Your task to perform on an android device: turn off location history Image 0: 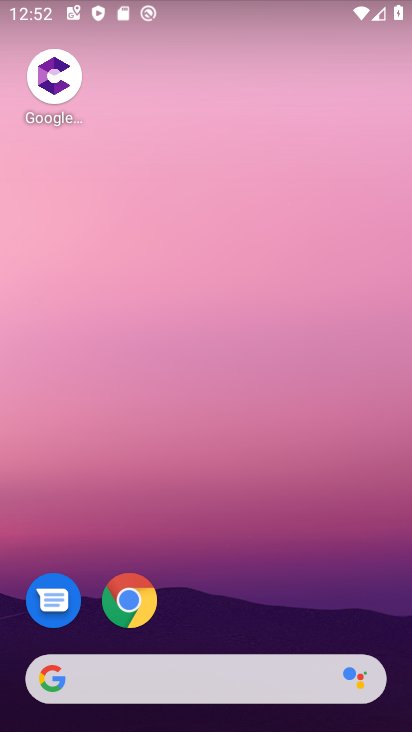
Step 0: drag from (323, 209) to (347, 35)
Your task to perform on an android device: turn off location history Image 1: 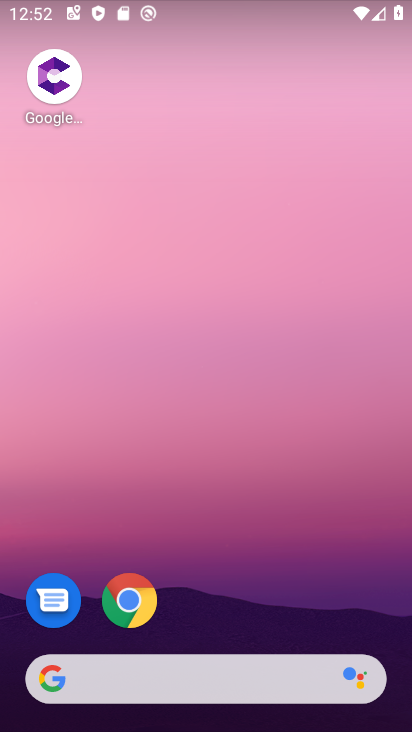
Step 1: drag from (221, 350) to (231, 47)
Your task to perform on an android device: turn off location history Image 2: 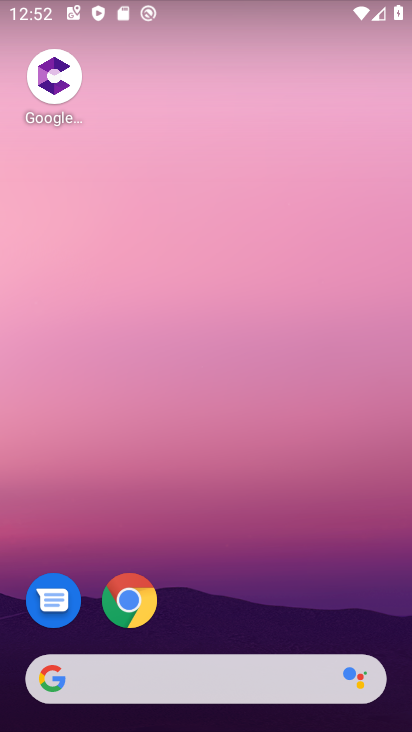
Step 2: drag from (296, 721) to (295, 203)
Your task to perform on an android device: turn off location history Image 3: 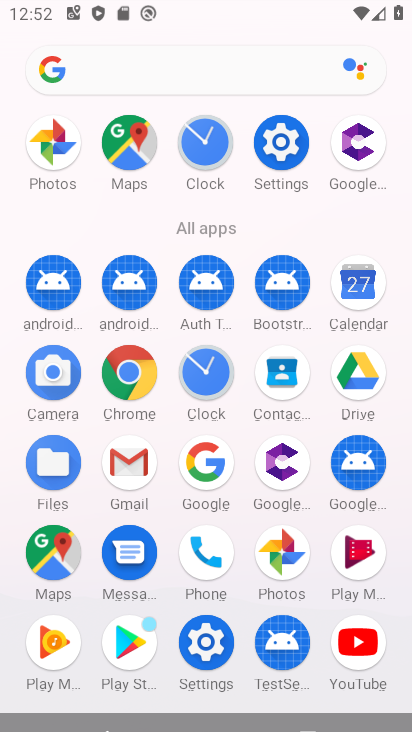
Step 3: click (293, 154)
Your task to perform on an android device: turn off location history Image 4: 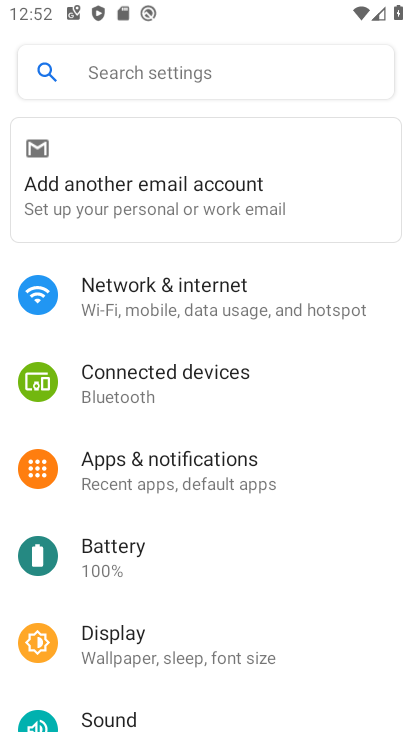
Step 4: drag from (324, 672) to (270, 301)
Your task to perform on an android device: turn off location history Image 5: 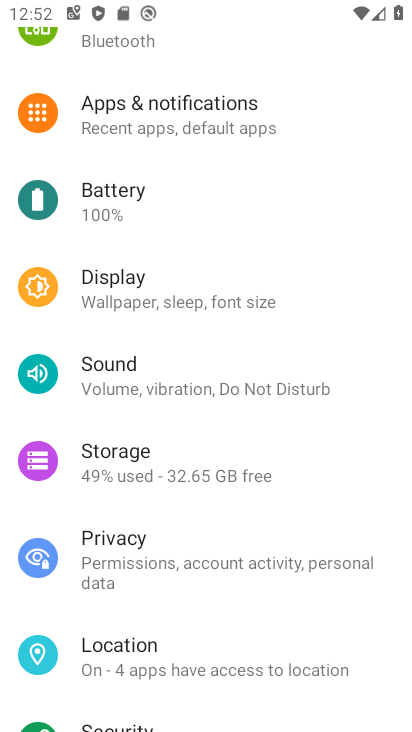
Step 5: click (166, 661)
Your task to perform on an android device: turn off location history Image 6: 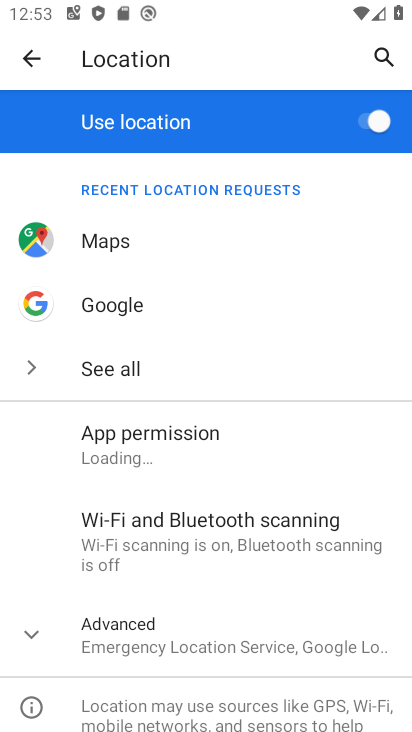
Step 6: click (249, 628)
Your task to perform on an android device: turn off location history Image 7: 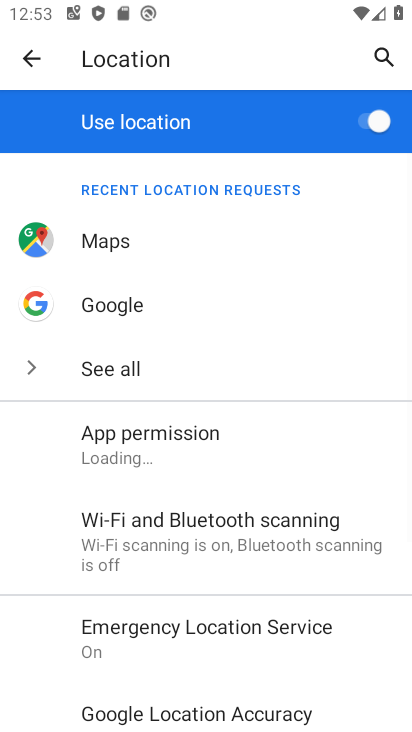
Step 7: drag from (315, 685) to (285, 484)
Your task to perform on an android device: turn off location history Image 8: 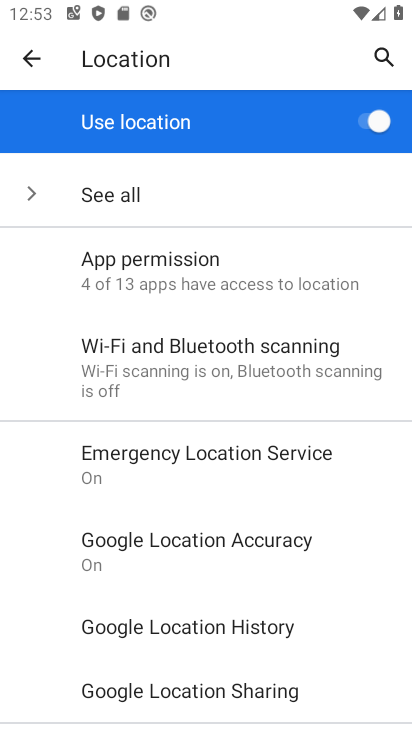
Step 8: click (248, 645)
Your task to perform on an android device: turn off location history Image 9: 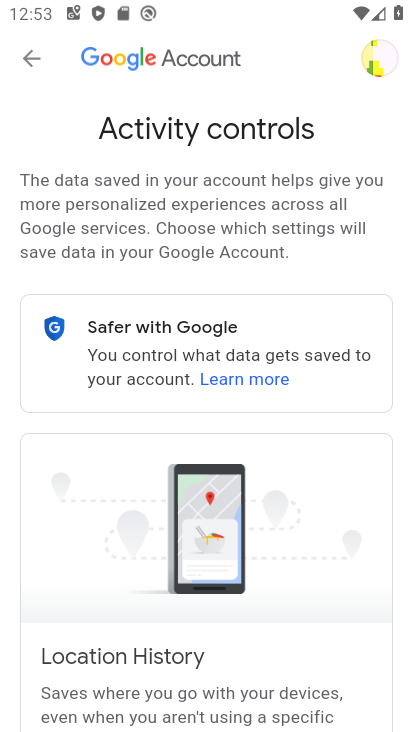
Step 9: drag from (305, 639) to (289, 367)
Your task to perform on an android device: turn off location history Image 10: 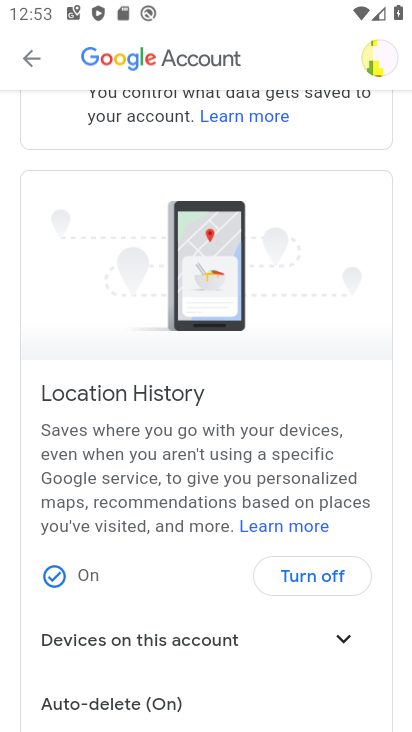
Step 10: click (340, 572)
Your task to perform on an android device: turn off location history Image 11: 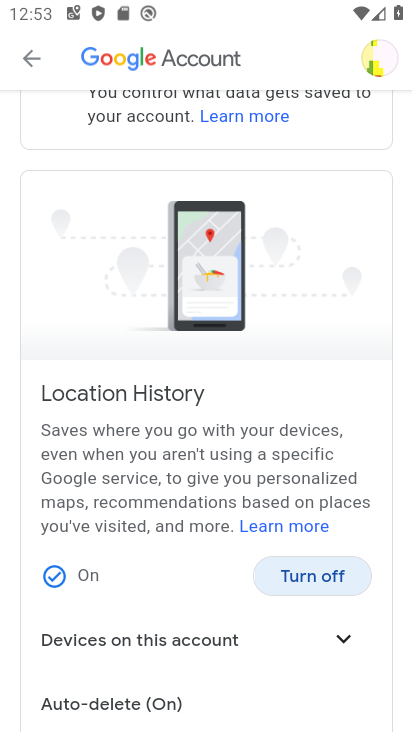
Step 11: click (342, 572)
Your task to perform on an android device: turn off location history Image 12: 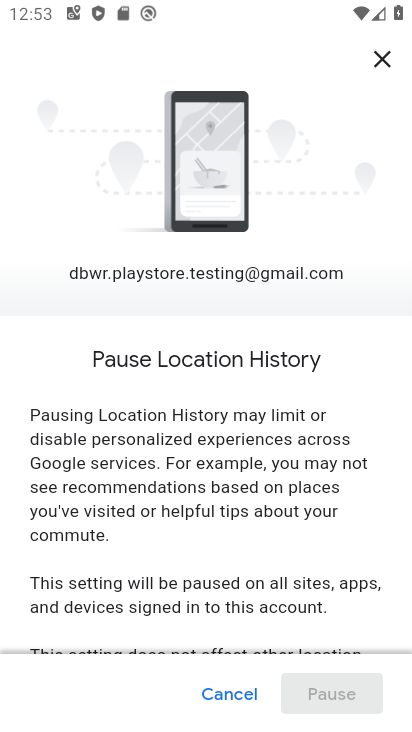
Step 12: drag from (223, 558) to (204, 222)
Your task to perform on an android device: turn off location history Image 13: 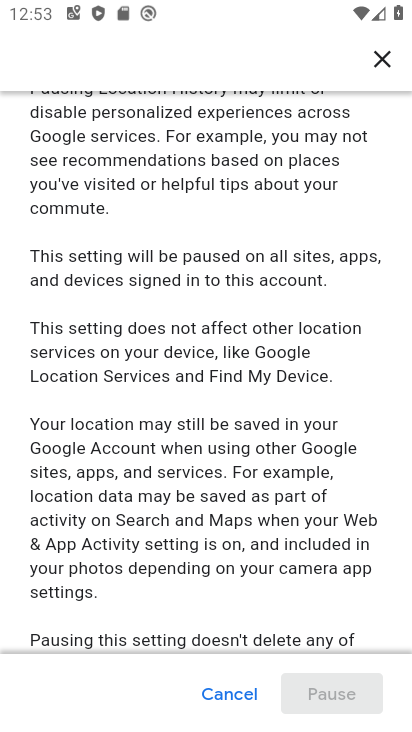
Step 13: drag from (258, 647) to (260, 407)
Your task to perform on an android device: turn off location history Image 14: 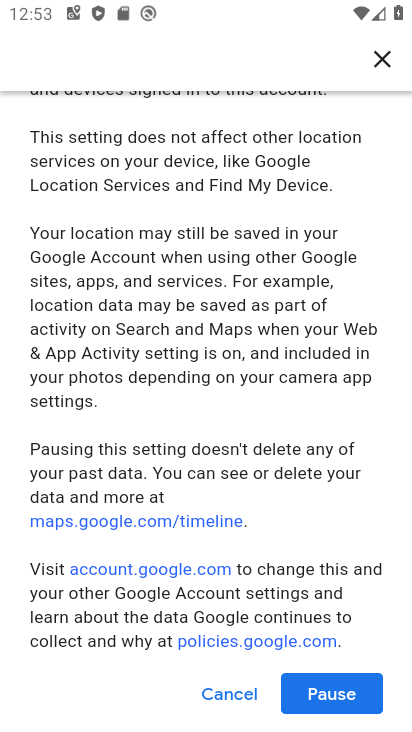
Step 14: drag from (316, 588) to (313, 365)
Your task to perform on an android device: turn off location history Image 15: 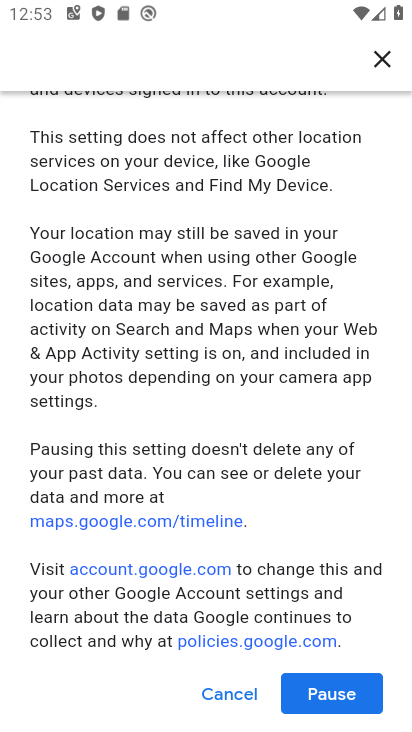
Step 15: click (229, 684)
Your task to perform on an android device: turn off location history Image 16: 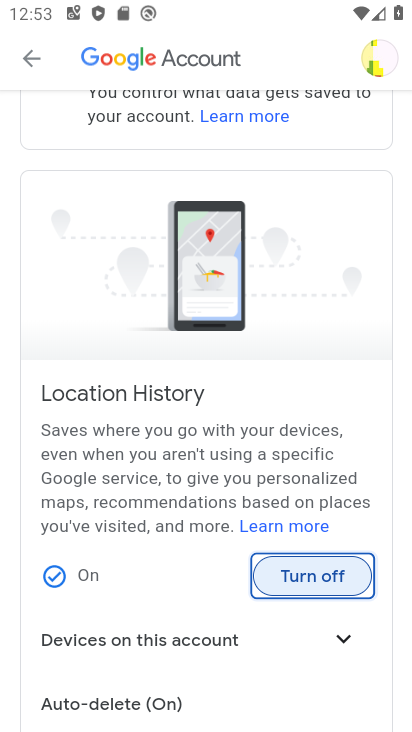
Step 16: click (324, 574)
Your task to perform on an android device: turn off location history Image 17: 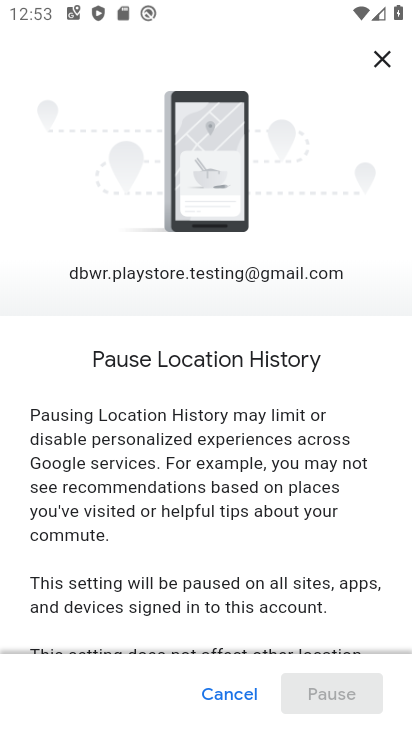
Step 17: drag from (344, 576) to (381, 6)
Your task to perform on an android device: turn off location history Image 18: 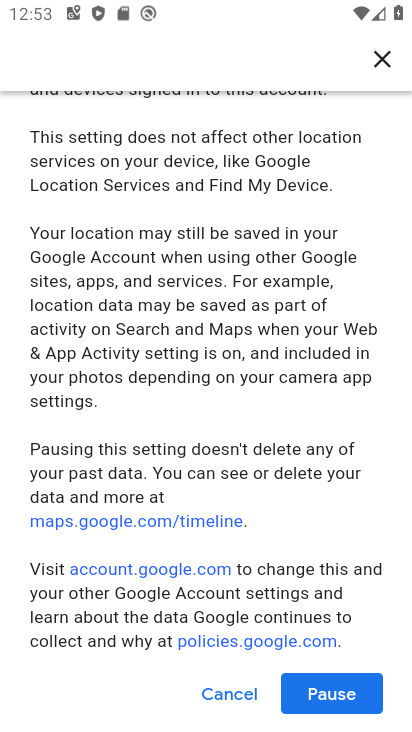
Step 18: click (346, 690)
Your task to perform on an android device: turn off location history Image 19: 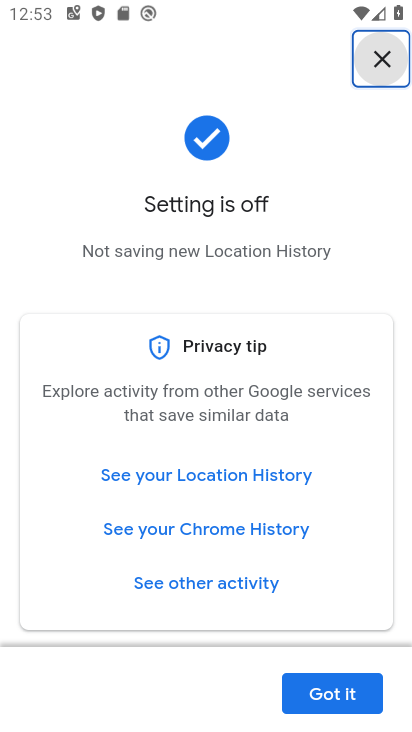
Step 19: task complete